Your task to perform on an android device: What's the weather going to be tomorrow? Image 0: 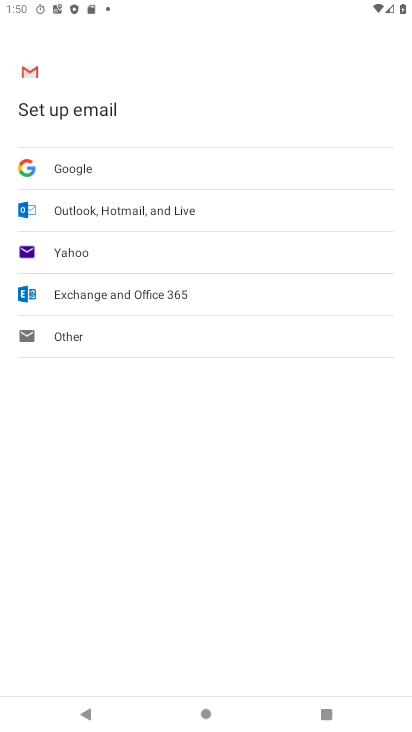
Step 0: press home button
Your task to perform on an android device: What's the weather going to be tomorrow? Image 1: 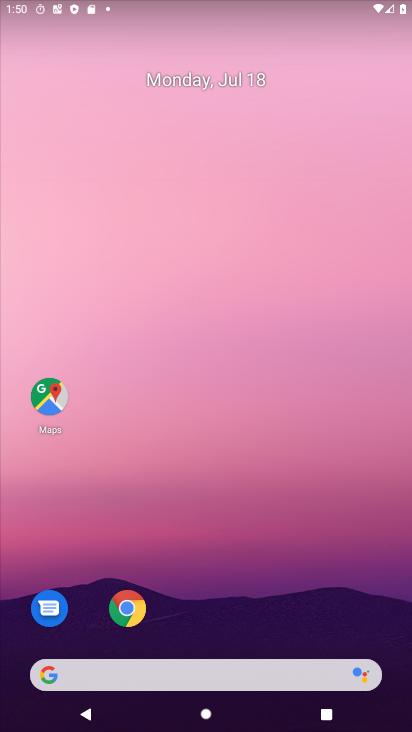
Step 1: drag from (234, 673) to (228, 40)
Your task to perform on an android device: What's the weather going to be tomorrow? Image 2: 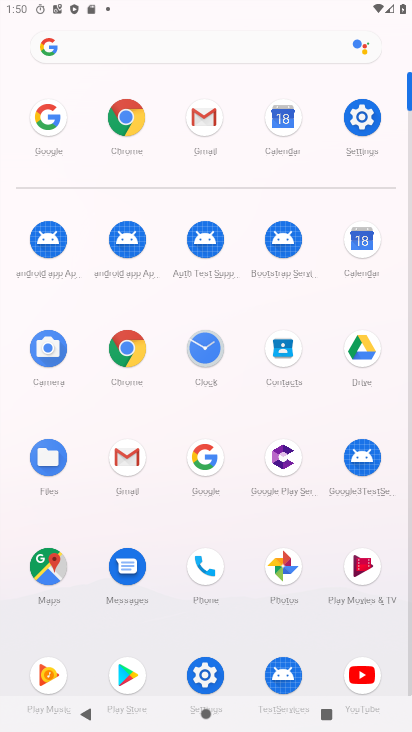
Step 2: click (205, 458)
Your task to perform on an android device: What's the weather going to be tomorrow? Image 3: 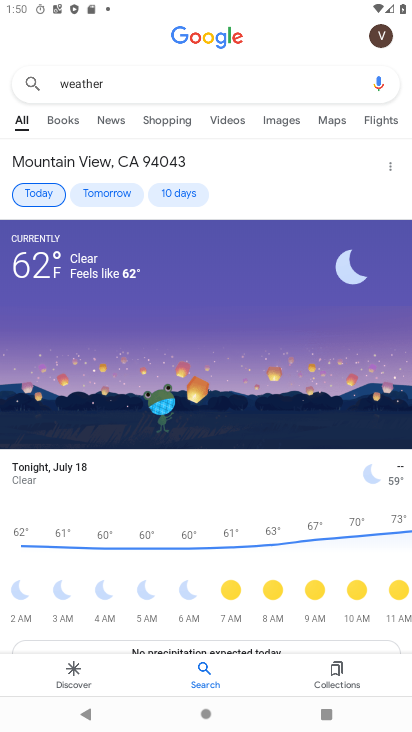
Step 3: click (104, 188)
Your task to perform on an android device: What's the weather going to be tomorrow? Image 4: 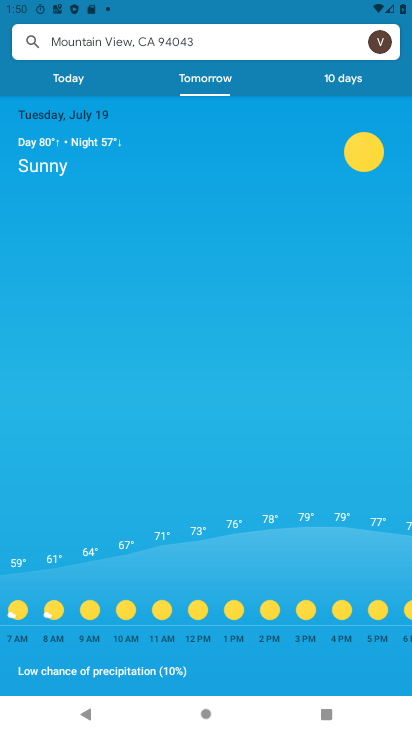
Step 4: task complete